Your task to perform on an android device: turn on wifi Image 0: 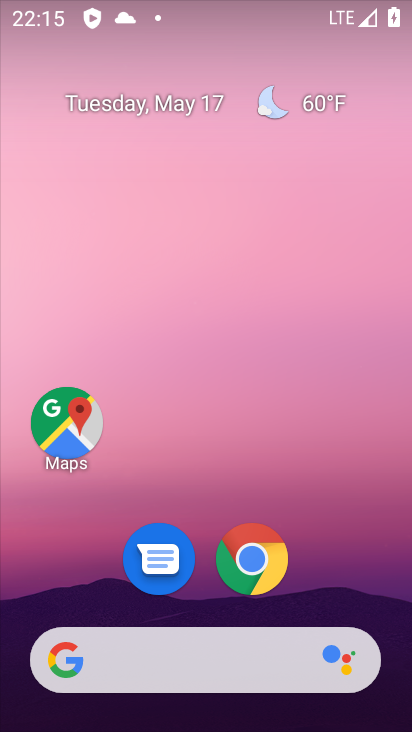
Step 0: drag from (358, 524) to (410, 151)
Your task to perform on an android device: turn on wifi Image 1: 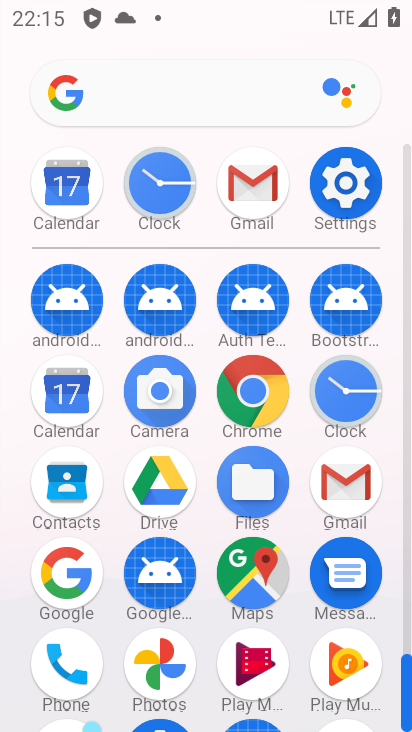
Step 1: click (359, 190)
Your task to perform on an android device: turn on wifi Image 2: 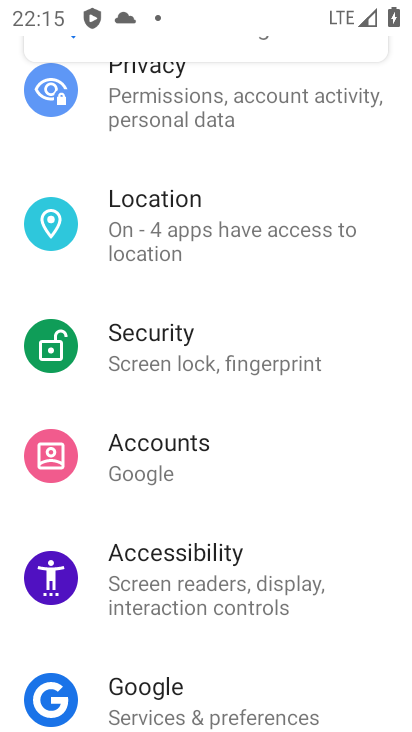
Step 2: drag from (282, 159) to (237, 705)
Your task to perform on an android device: turn on wifi Image 3: 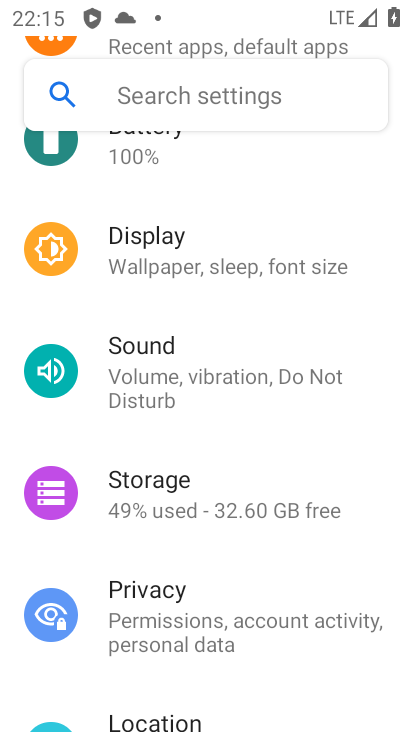
Step 3: drag from (276, 217) to (268, 609)
Your task to perform on an android device: turn on wifi Image 4: 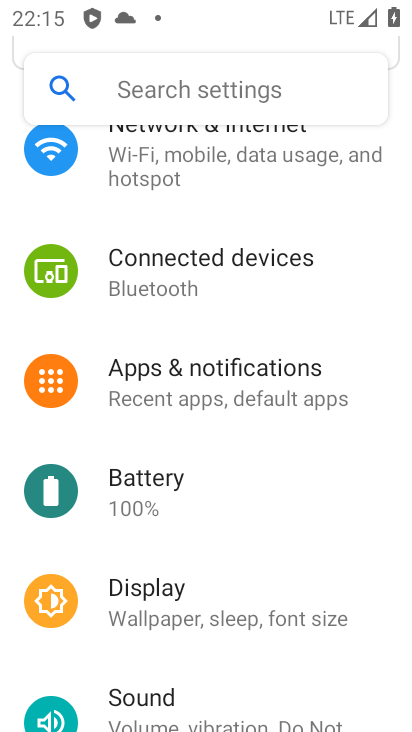
Step 4: click (237, 161)
Your task to perform on an android device: turn on wifi Image 5: 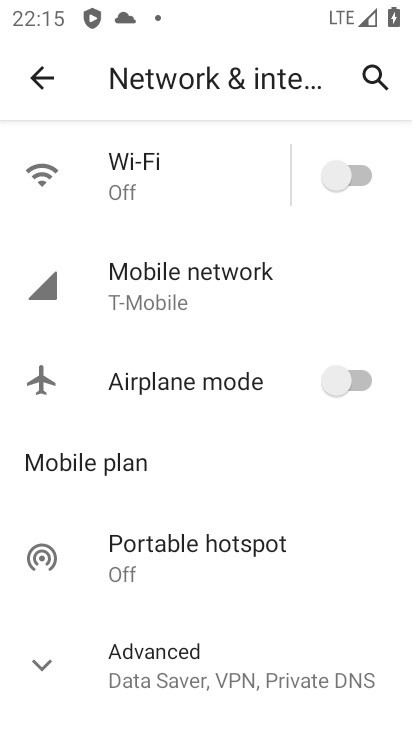
Step 5: click (358, 165)
Your task to perform on an android device: turn on wifi Image 6: 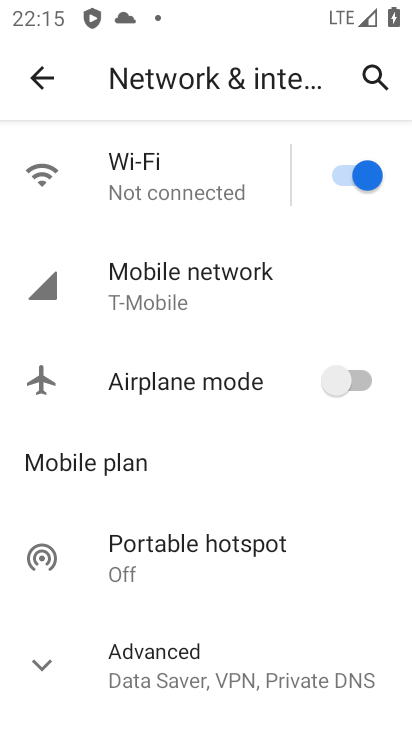
Step 6: task complete